Your task to perform on an android device: Open the stopwatch Image 0: 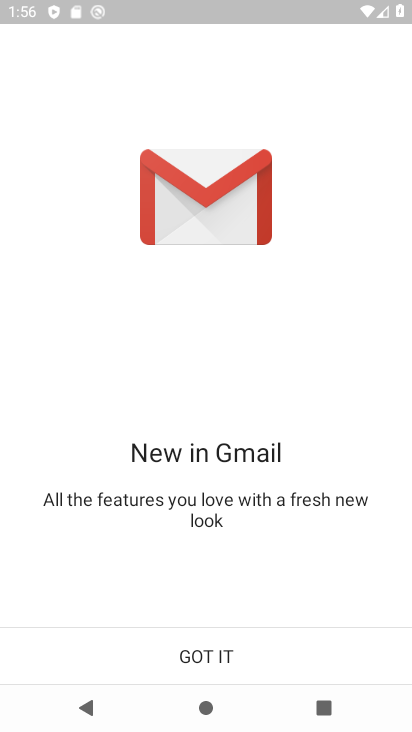
Step 0: press home button
Your task to perform on an android device: Open the stopwatch Image 1: 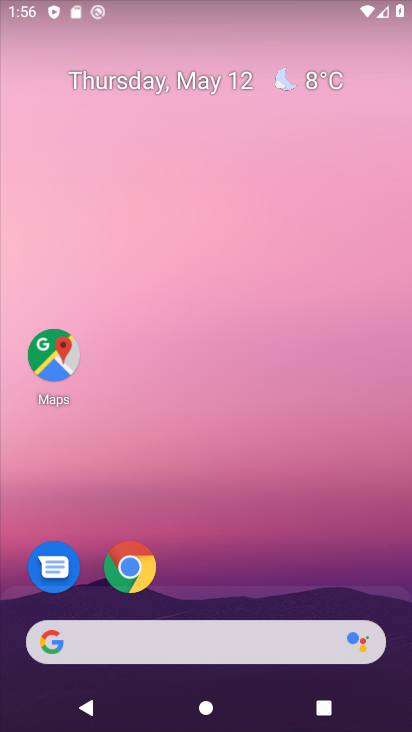
Step 1: drag from (266, 544) to (344, 195)
Your task to perform on an android device: Open the stopwatch Image 2: 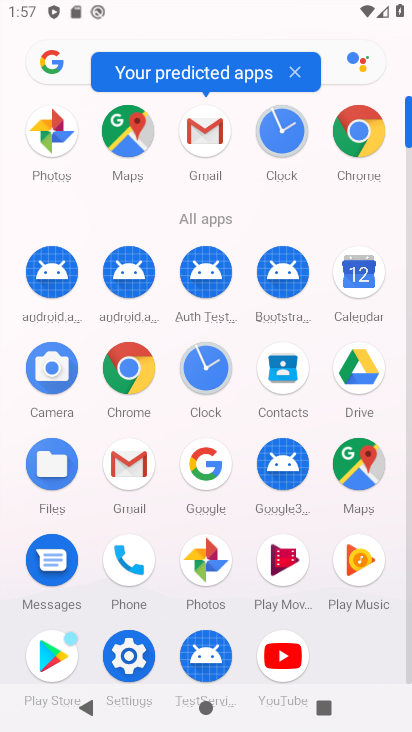
Step 2: click (284, 136)
Your task to perform on an android device: Open the stopwatch Image 3: 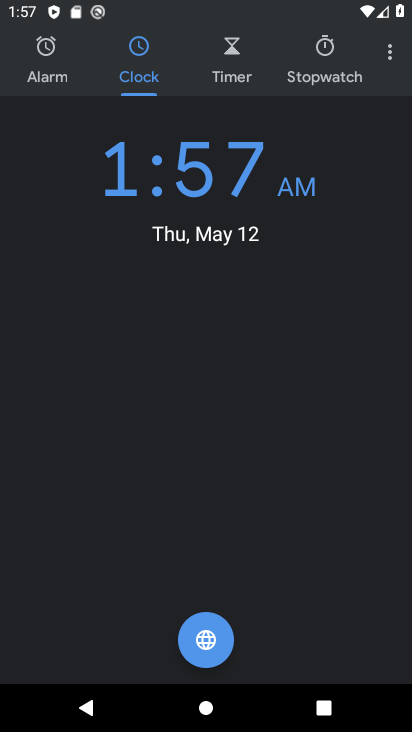
Step 3: click (318, 73)
Your task to perform on an android device: Open the stopwatch Image 4: 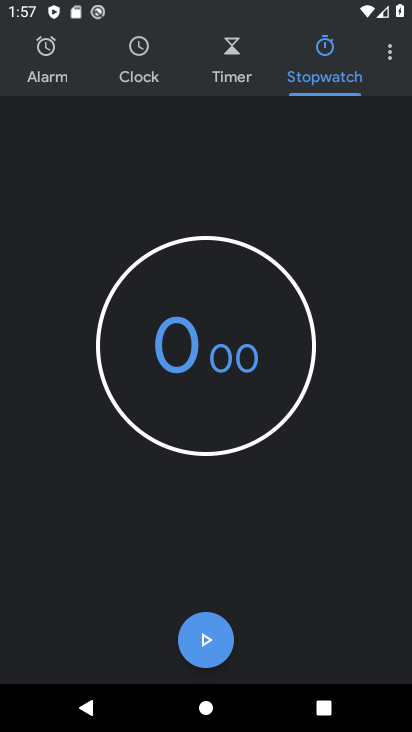
Step 4: task complete